Your task to perform on an android device: open app "Pinterest" (install if not already installed) Image 0: 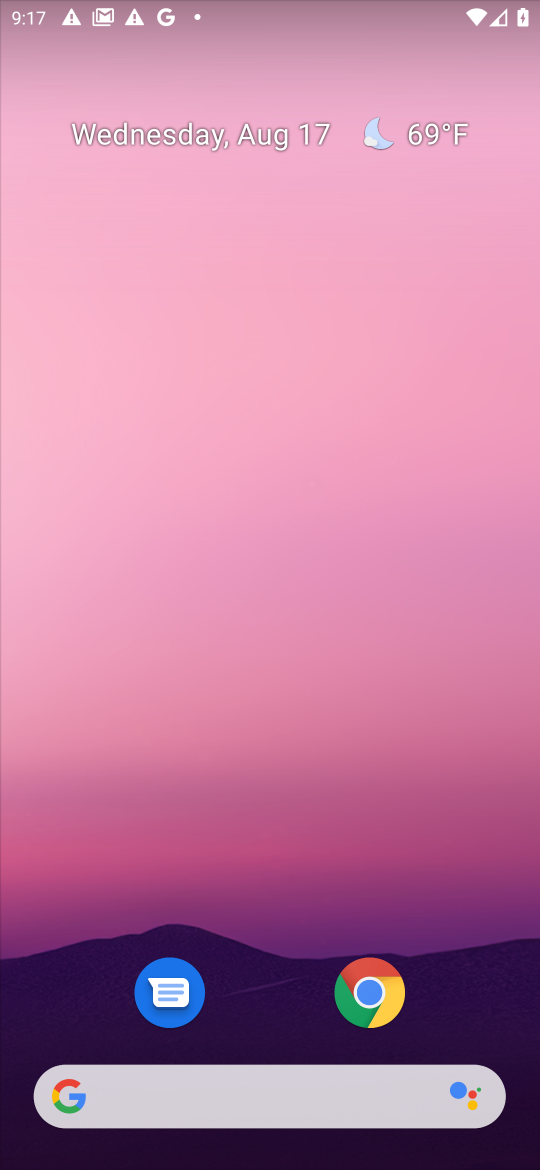
Step 0: drag from (483, 1039) to (178, 31)
Your task to perform on an android device: open app "Pinterest" (install if not already installed) Image 1: 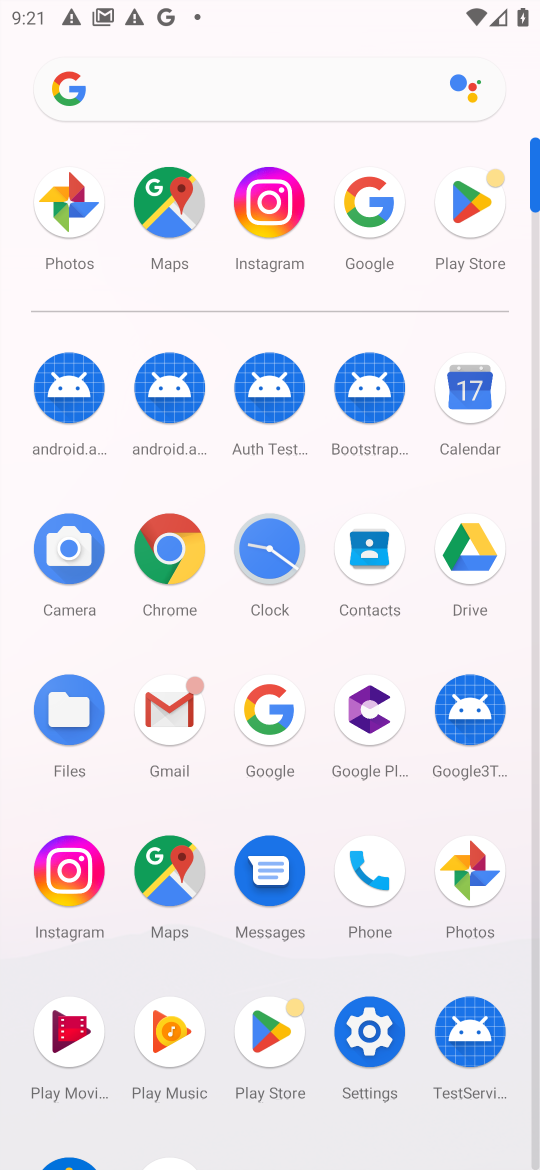
Step 1: click (260, 1060)
Your task to perform on an android device: open app "Pinterest" (install if not already installed) Image 2: 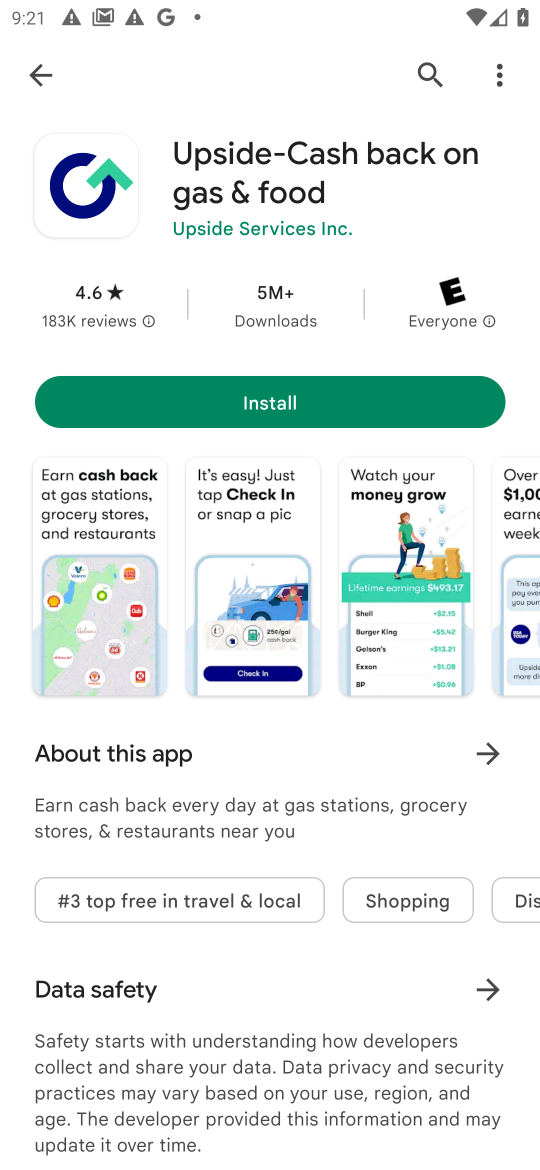
Step 2: press back button
Your task to perform on an android device: open app "Pinterest" (install if not already installed) Image 3: 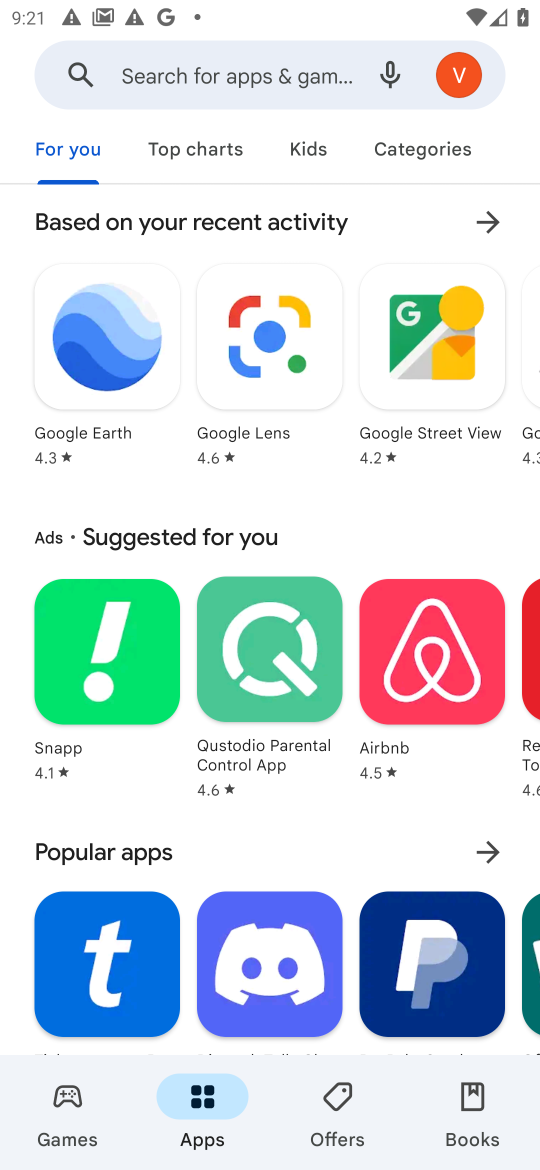
Step 3: click (100, 77)
Your task to perform on an android device: open app "Pinterest" (install if not already installed) Image 4: 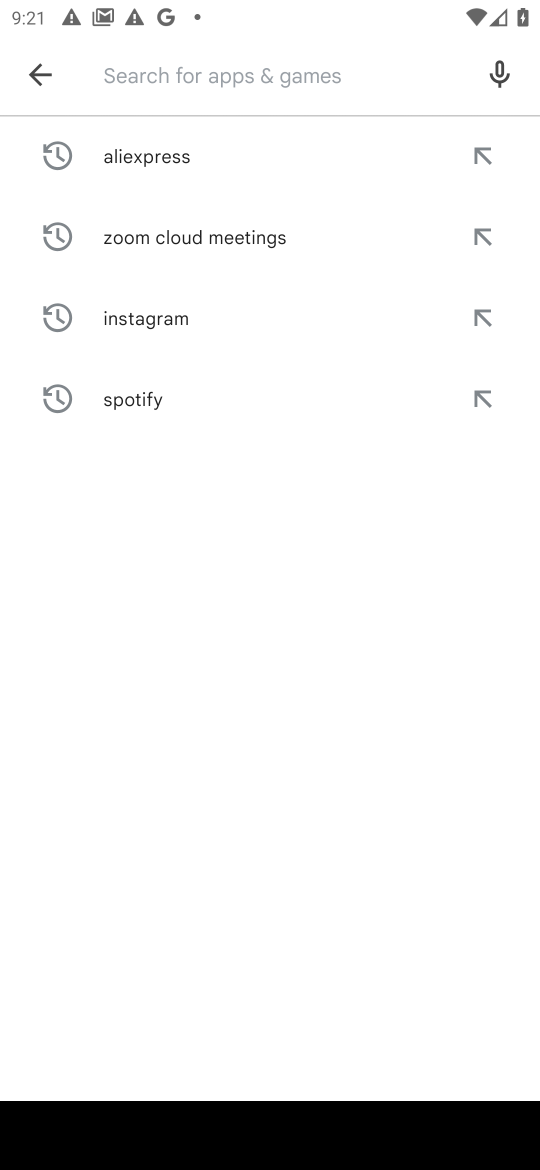
Step 4: type "Pinterest"
Your task to perform on an android device: open app "Pinterest" (install if not already installed) Image 5: 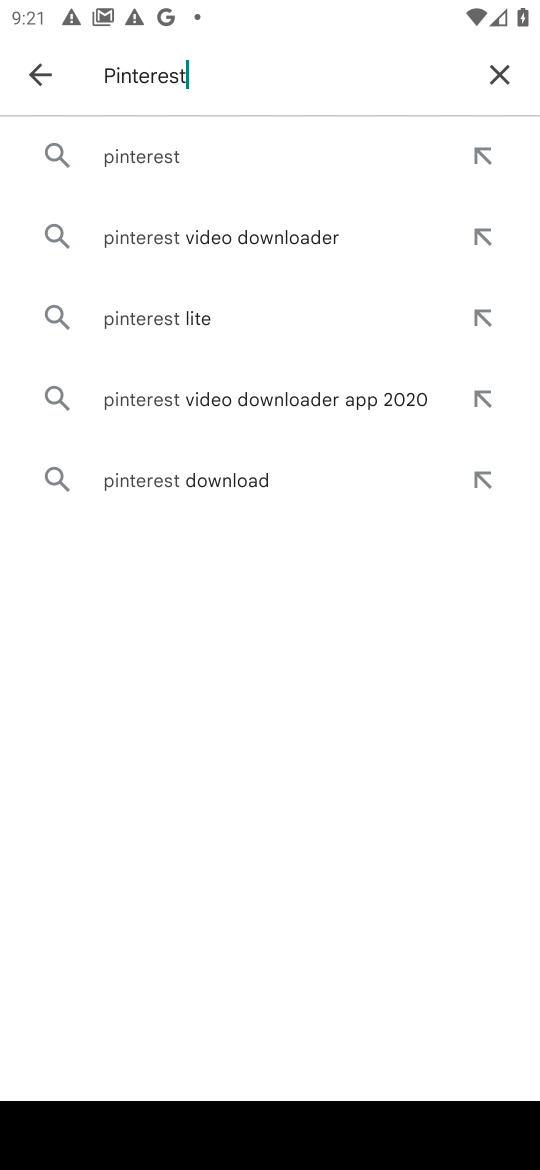
Step 5: click (186, 163)
Your task to perform on an android device: open app "Pinterest" (install if not already installed) Image 6: 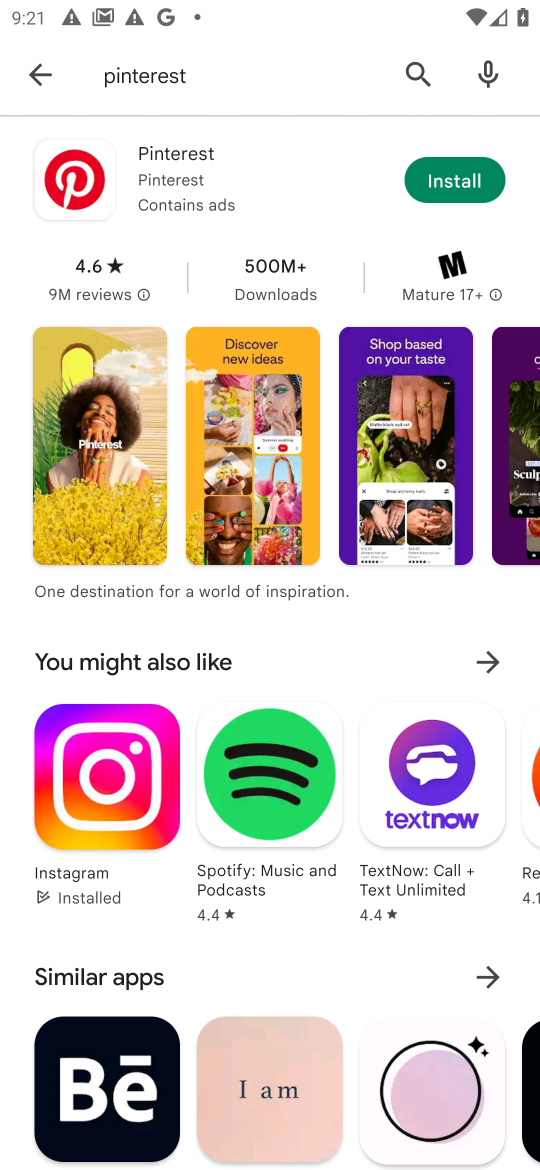
Step 6: task complete